Your task to perform on an android device: open a bookmark in the chrome app Image 0: 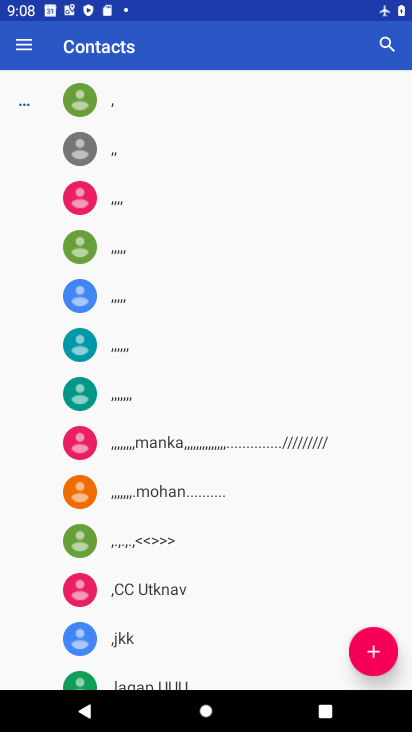
Step 0: press home button
Your task to perform on an android device: open a bookmark in the chrome app Image 1: 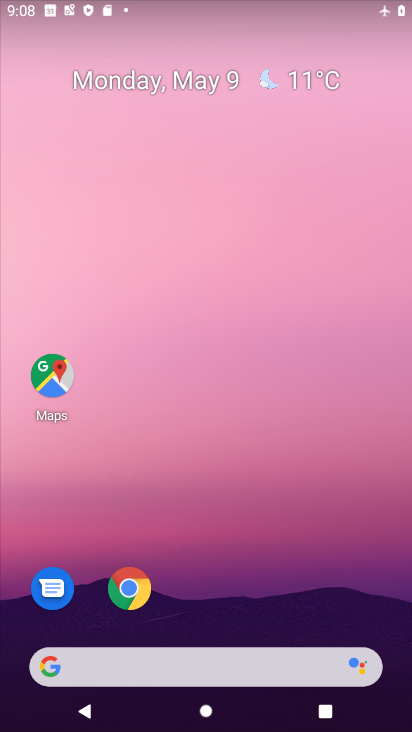
Step 1: click (128, 596)
Your task to perform on an android device: open a bookmark in the chrome app Image 2: 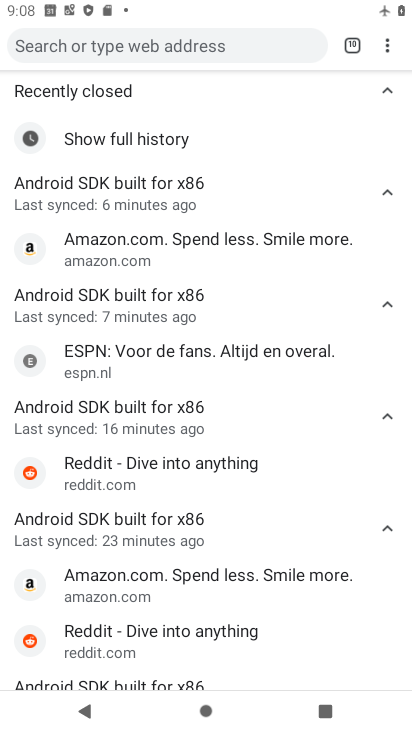
Step 2: task complete